Your task to perform on an android device: Open Google Chrome Image 0: 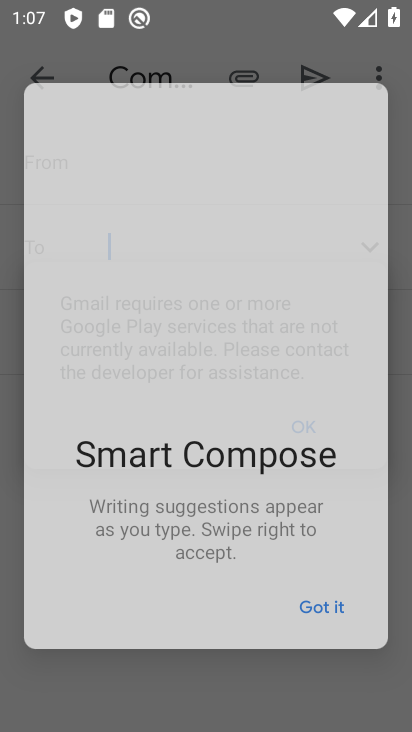
Step 0: press home button
Your task to perform on an android device: Open Google Chrome Image 1: 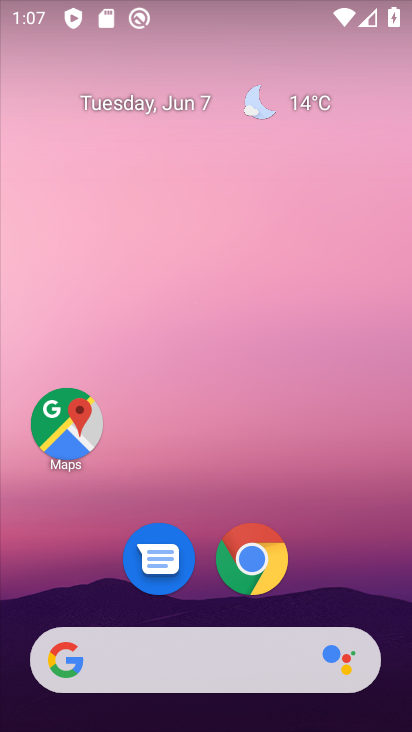
Step 1: drag from (320, 505) to (312, 9)
Your task to perform on an android device: Open Google Chrome Image 2: 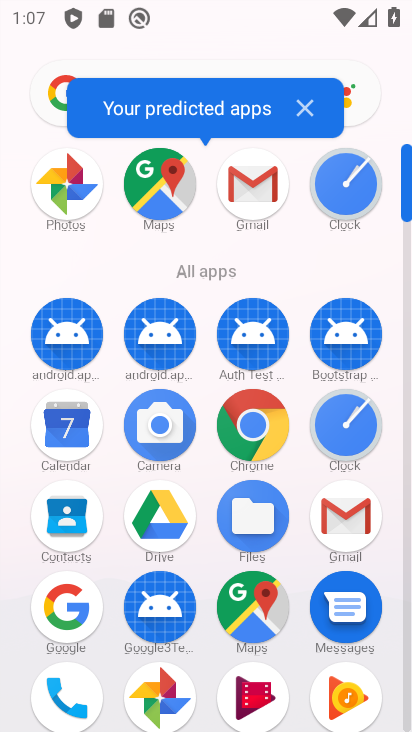
Step 2: click (268, 438)
Your task to perform on an android device: Open Google Chrome Image 3: 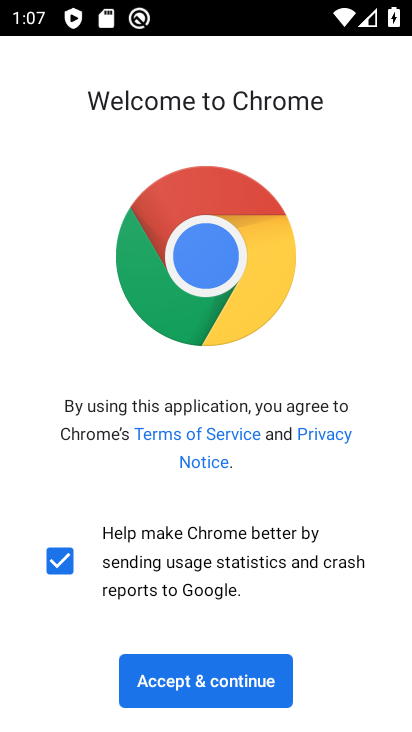
Step 3: click (217, 678)
Your task to perform on an android device: Open Google Chrome Image 4: 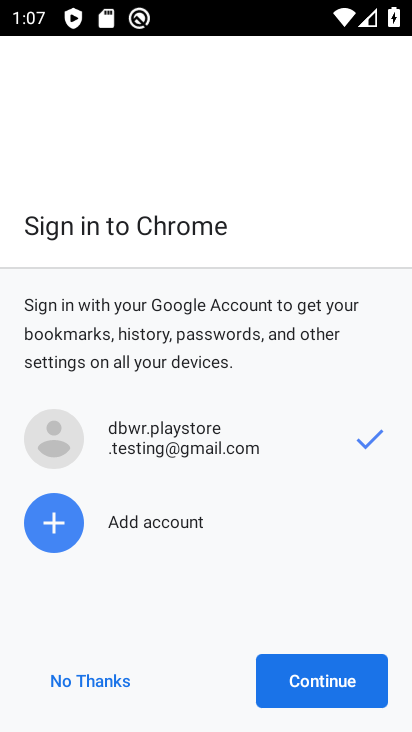
Step 4: click (94, 680)
Your task to perform on an android device: Open Google Chrome Image 5: 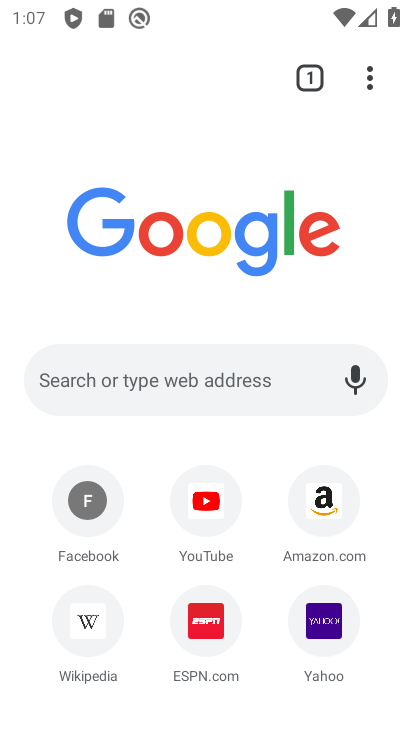
Step 5: task complete